Your task to perform on an android device: set default search engine in the chrome app Image 0: 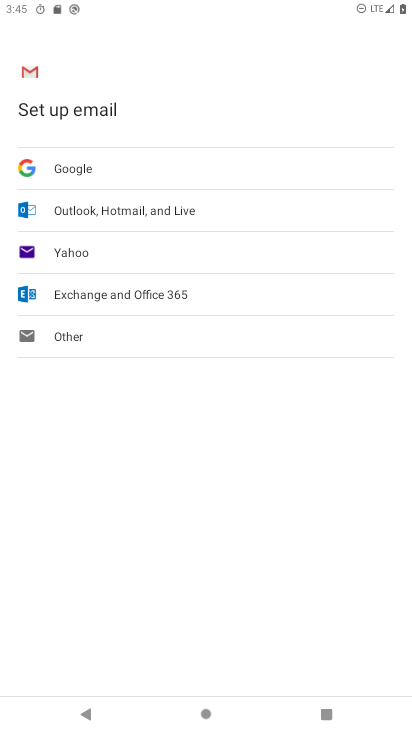
Step 0: press home button
Your task to perform on an android device: set default search engine in the chrome app Image 1: 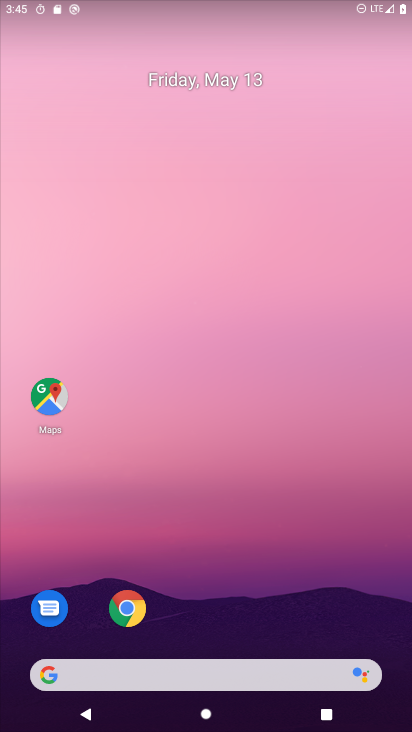
Step 1: click (126, 619)
Your task to perform on an android device: set default search engine in the chrome app Image 2: 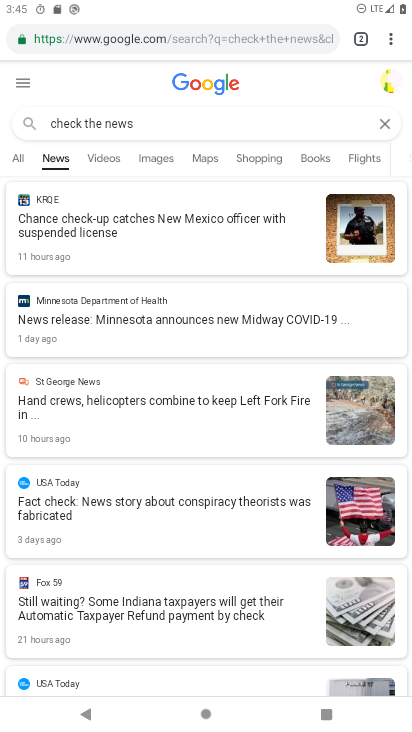
Step 2: drag from (392, 33) to (266, 426)
Your task to perform on an android device: set default search engine in the chrome app Image 3: 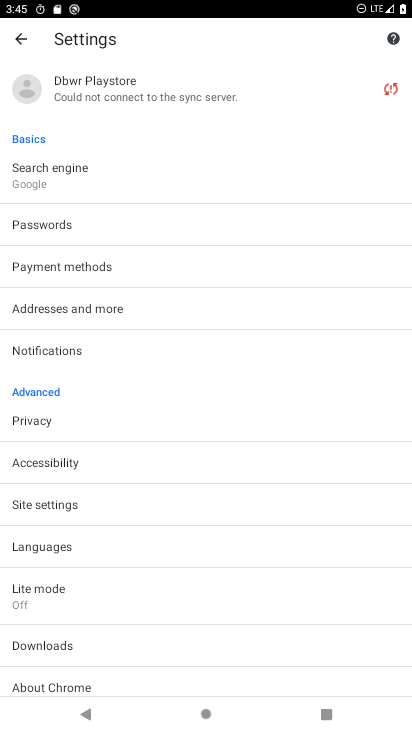
Step 3: click (65, 161)
Your task to perform on an android device: set default search engine in the chrome app Image 4: 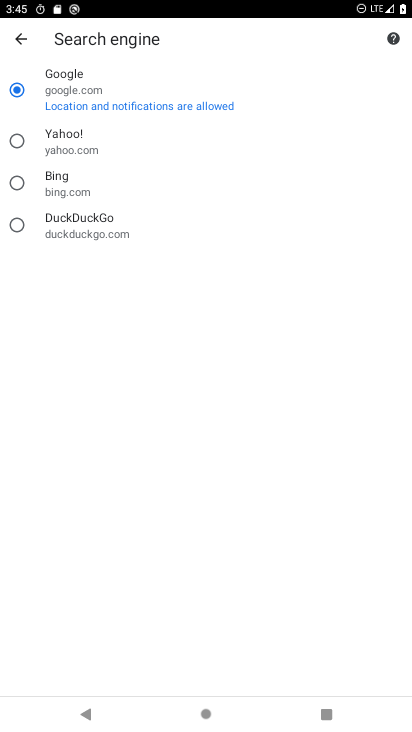
Step 4: task complete